Your task to perform on an android device: Open privacy settings Image 0: 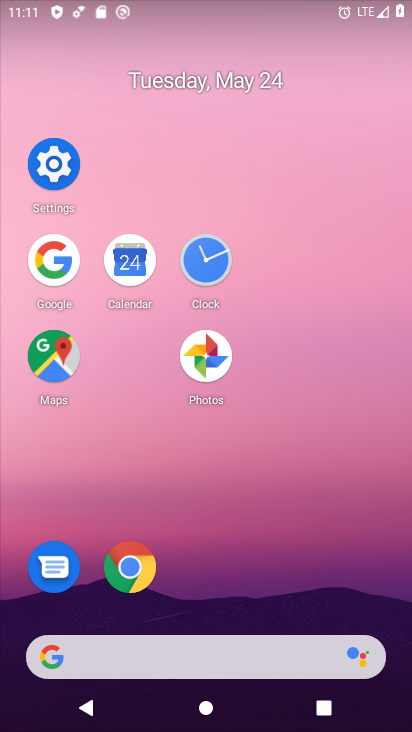
Step 0: click (71, 174)
Your task to perform on an android device: Open privacy settings Image 1: 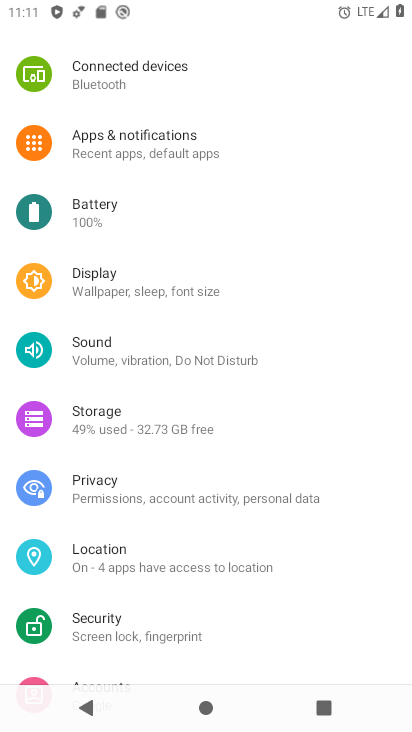
Step 1: click (96, 493)
Your task to perform on an android device: Open privacy settings Image 2: 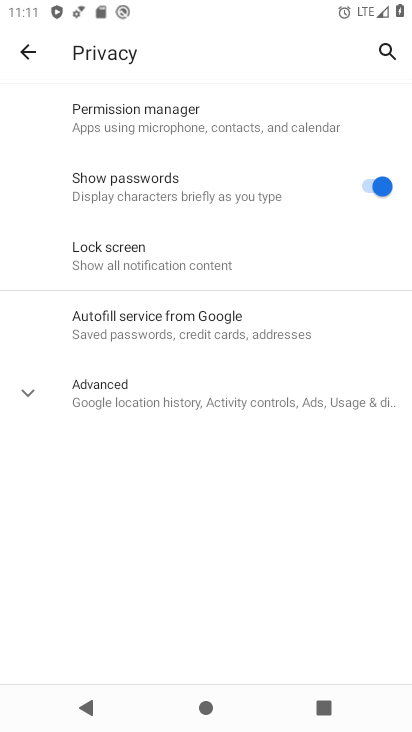
Step 2: task complete